Your task to perform on an android device: Go to ESPN.com Image 0: 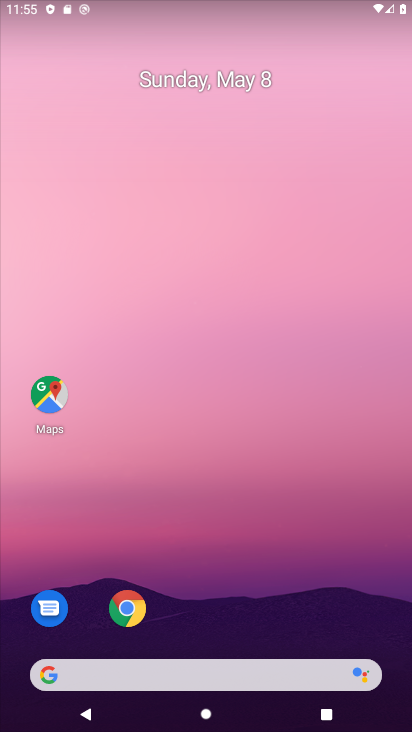
Step 0: click (142, 620)
Your task to perform on an android device: Go to ESPN.com Image 1: 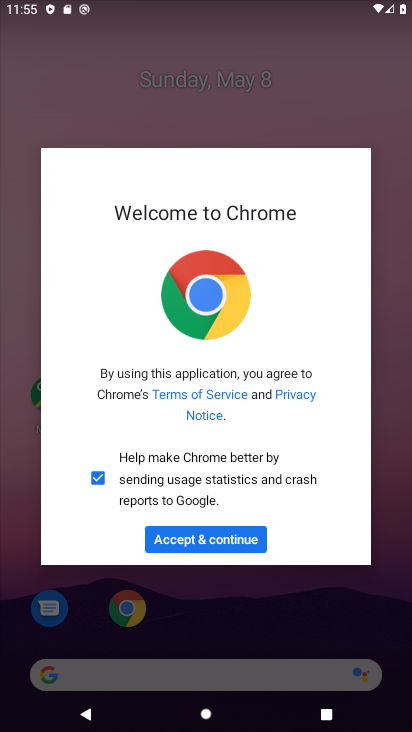
Step 1: click (231, 533)
Your task to perform on an android device: Go to ESPN.com Image 2: 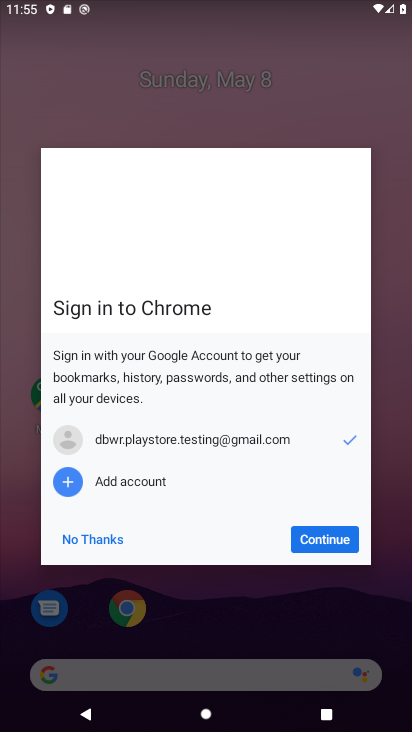
Step 2: click (325, 533)
Your task to perform on an android device: Go to ESPN.com Image 3: 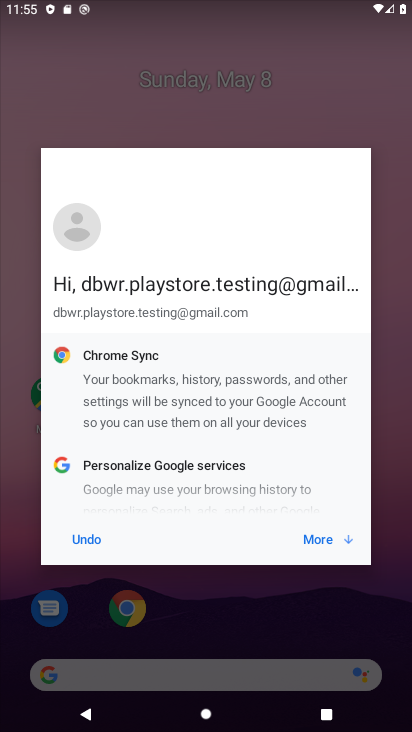
Step 3: click (325, 533)
Your task to perform on an android device: Go to ESPN.com Image 4: 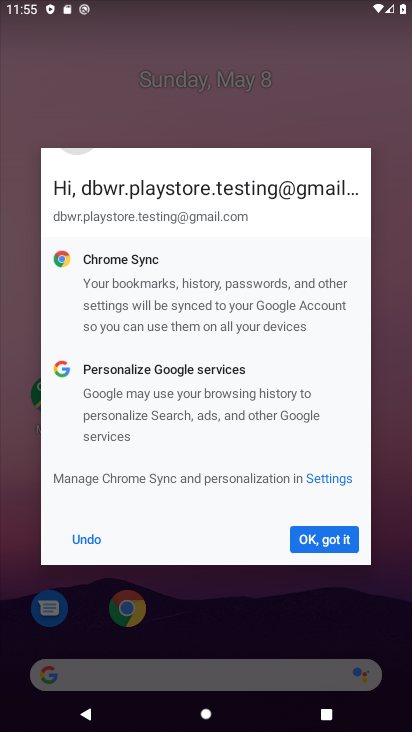
Step 4: click (325, 533)
Your task to perform on an android device: Go to ESPN.com Image 5: 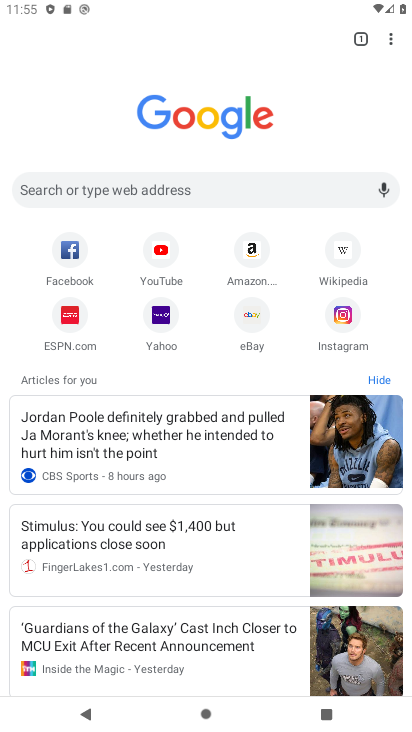
Step 5: click (78, 320)
Your task to perform on an android device: Go to ESPN.com Image 6: 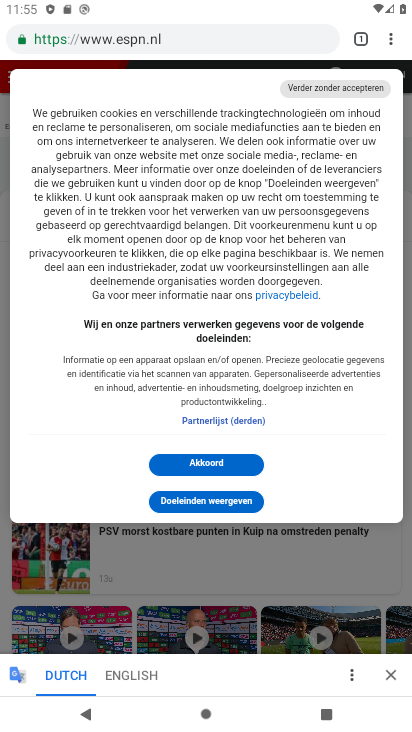
Step 6: click (231, 476)
Your task to perform on an android device: Go to ESPN.com Image 7: 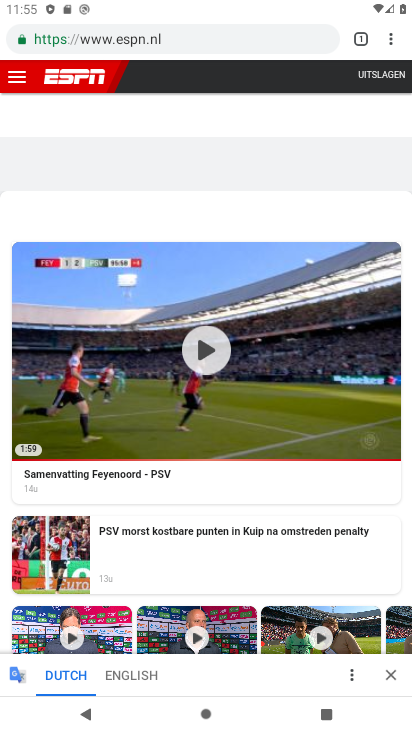
Step 7: task complete